Your task to perform on an android device: Open settings on Google Maps Image 0: 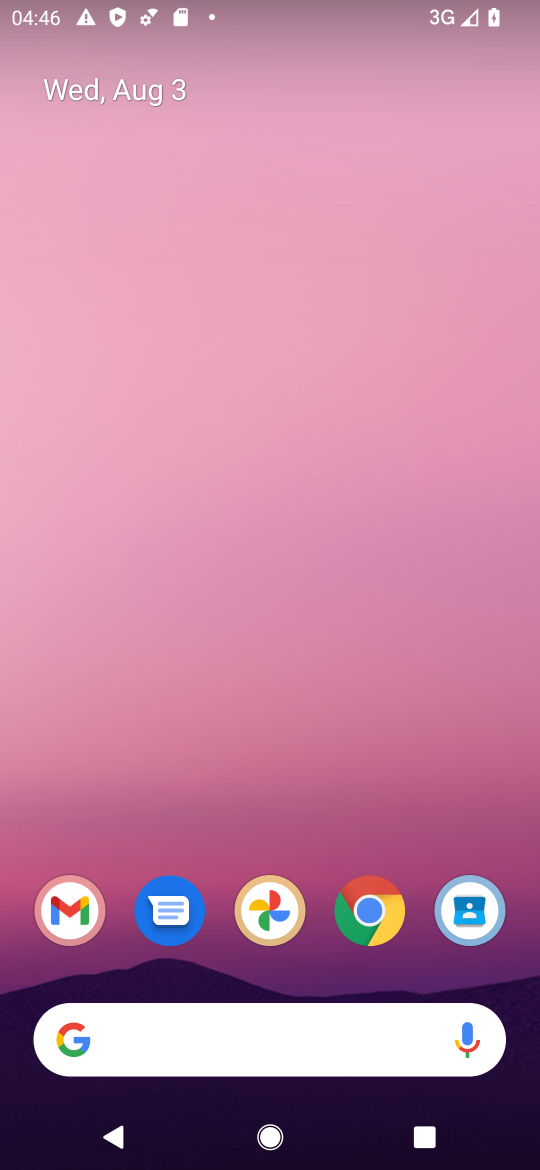
Step 0: press home button
Your task to perform on an android device: Open settings on Google Maps Image 1: 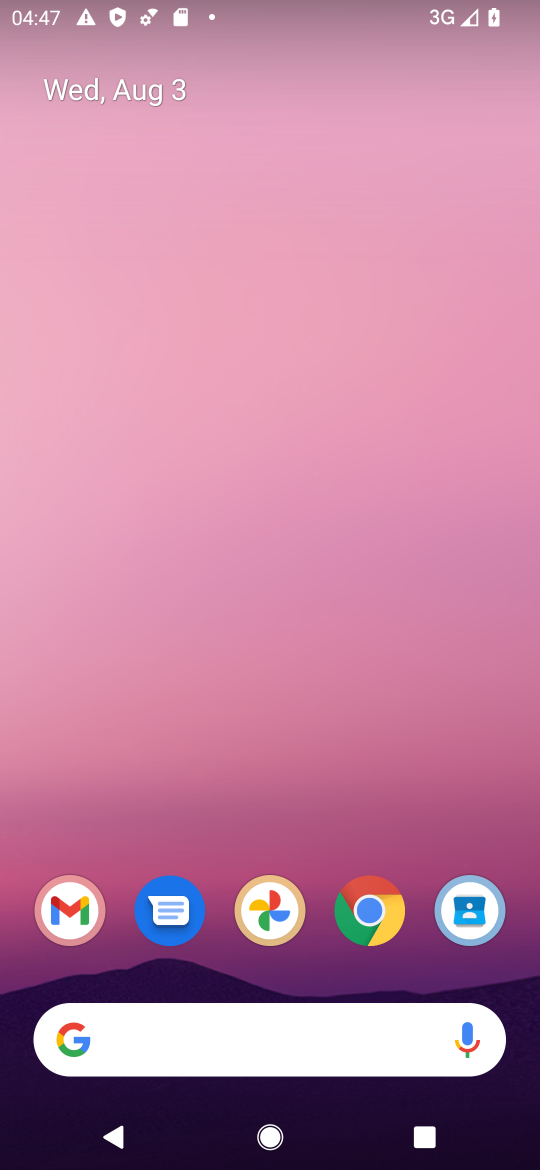
Step 1: drag from (296, 808) to (309, 24)
Your task to perform on an android device: Open settings on Google Maps Image 2: 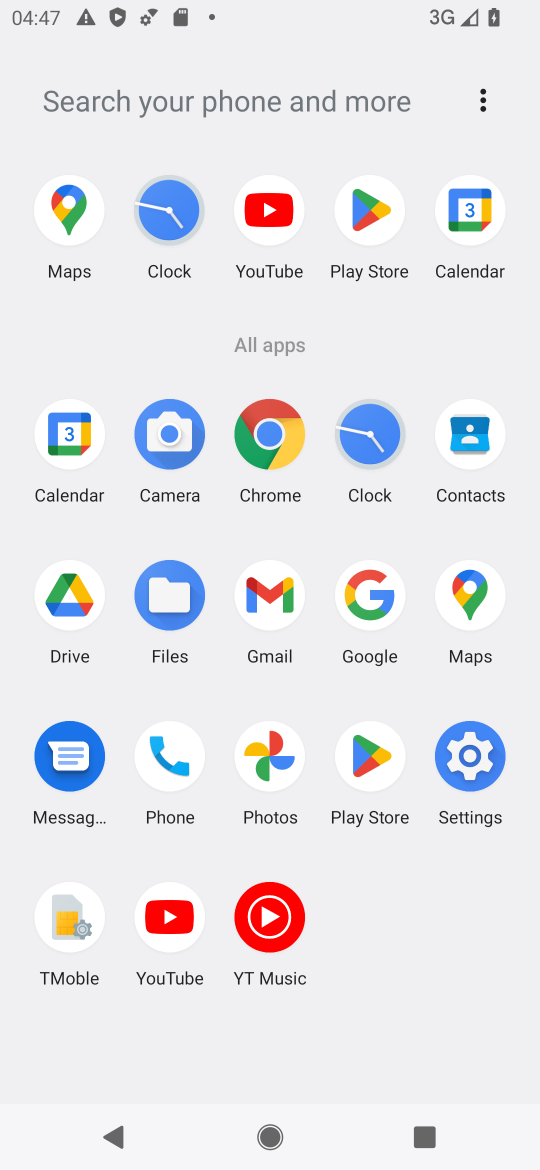
Step 2: click (478, 584)
Your task to perform on an android device: Open settings on Google Maps Image 3: 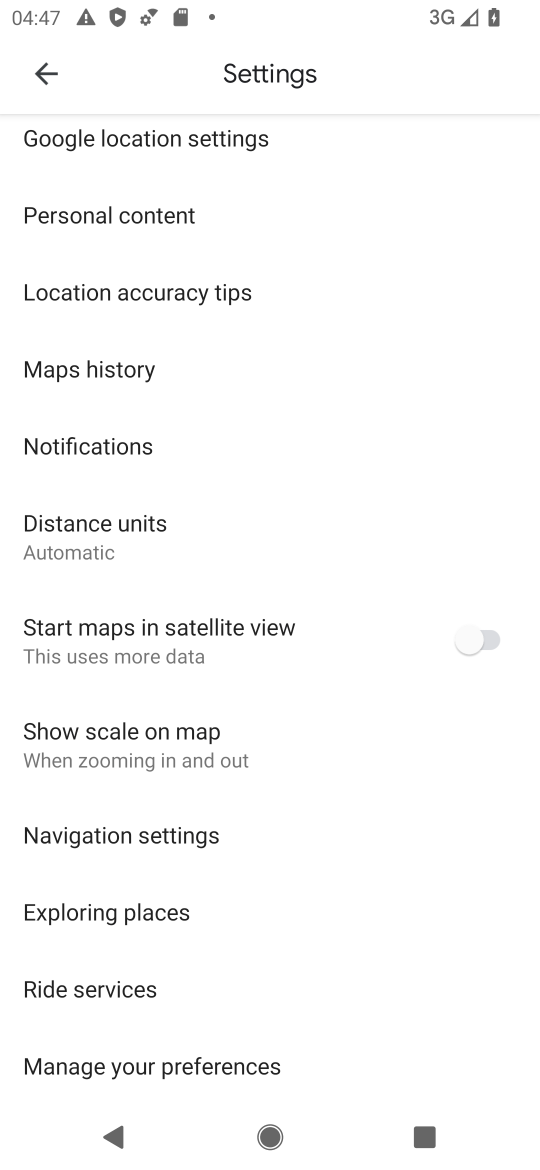
Step 3: click (46, 66)
Your task to perform on an android device: Open settings on Google Maps Image 4: 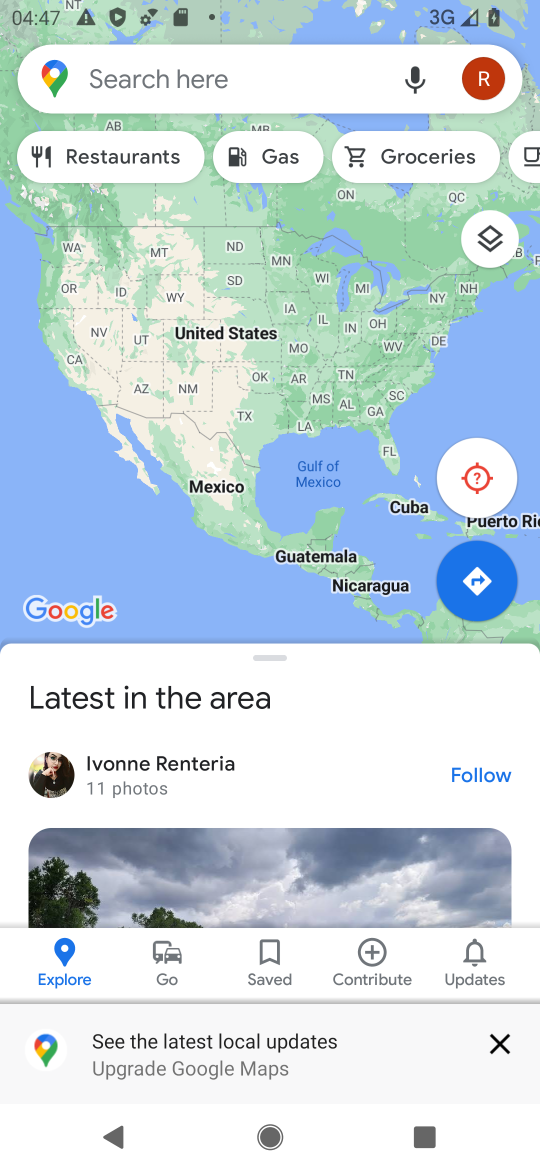
Step 4: click (484, 71)
Your task to perform on an android device: Open settings on Google Maps Image 5: 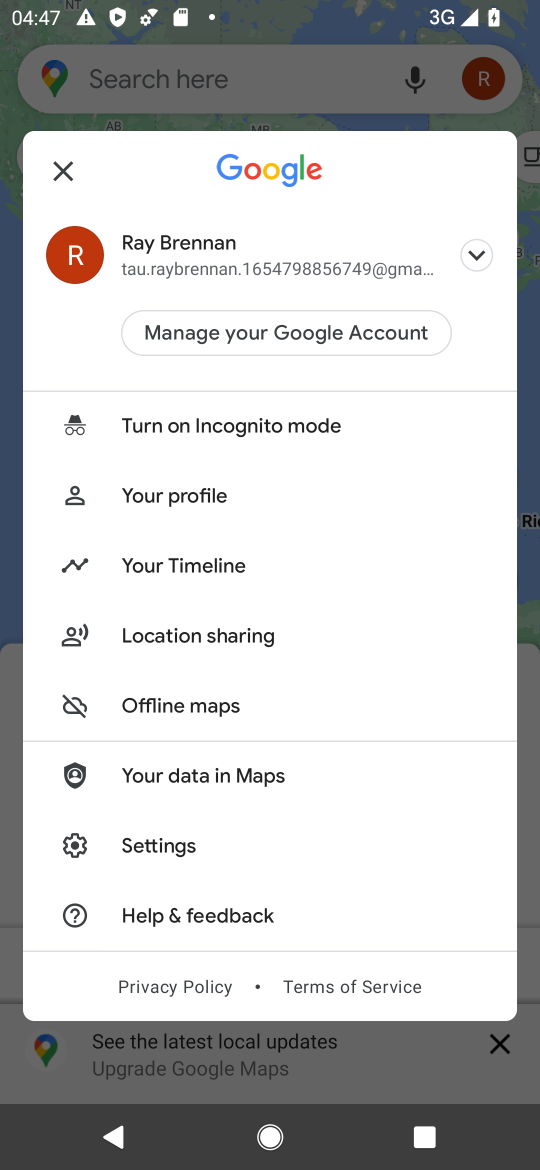
Step 5: click (210, 847)
Your task to perform on an android device: Open settings on Google Maps Image 6: 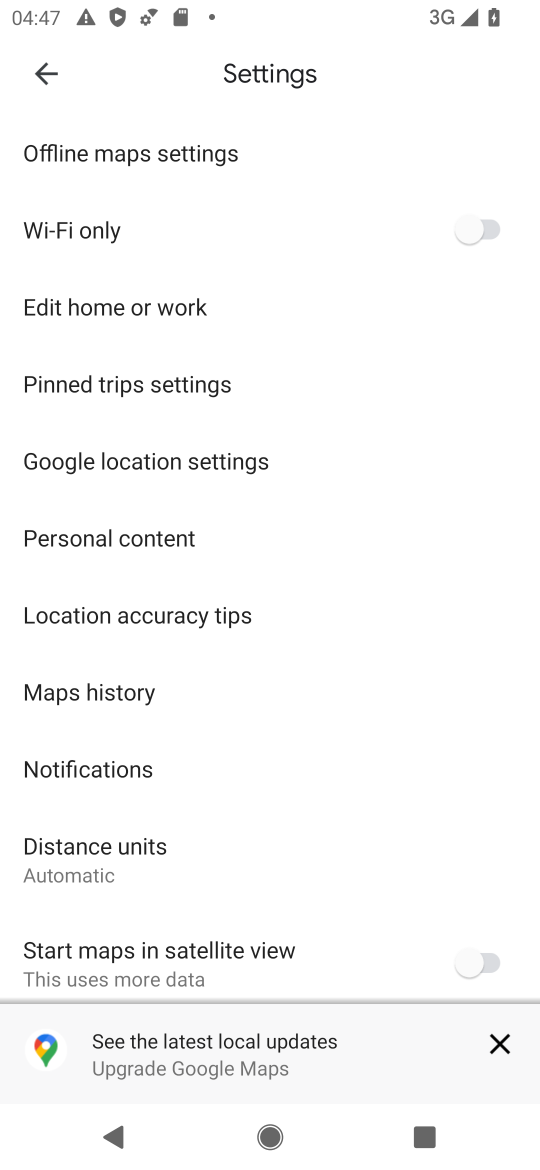
Step 6: task complete